Your task to perform on an android device: Is it going to rain today? Image 0: 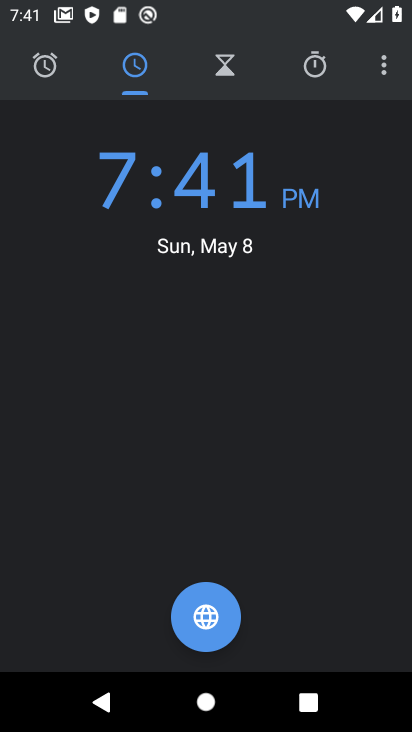
Step 0: press home button
Your task to perform on an android device: Is it going to rain today? Image 1: 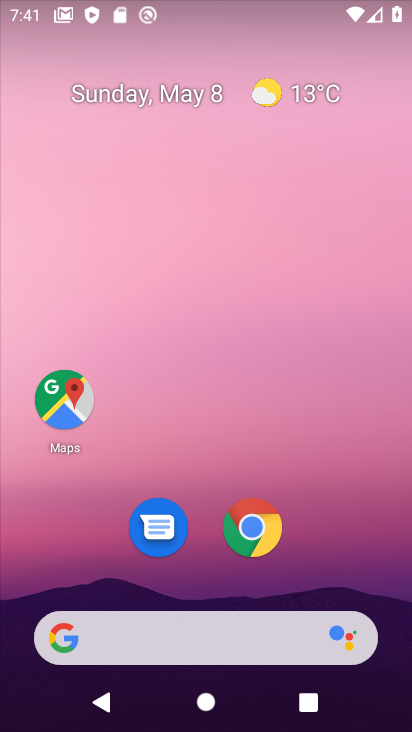
Step 1: click (276, 94)
Your task to perform on an android device: Is it going to rain today? Image 2: 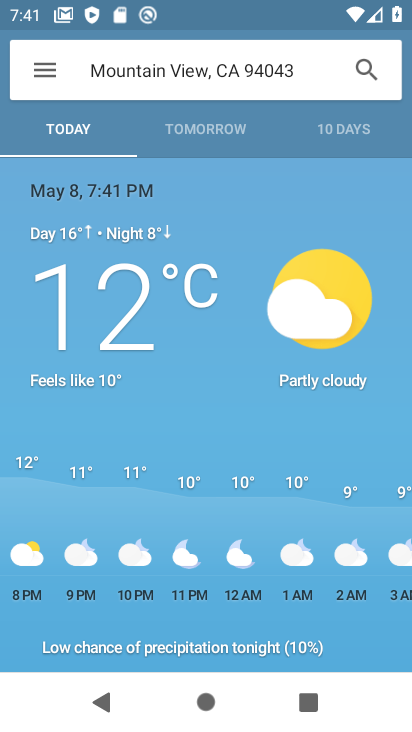
Step 2: task complete